Your task to perform on an android device: Open the Play Movies app and select the watchlist tab. Image 0: 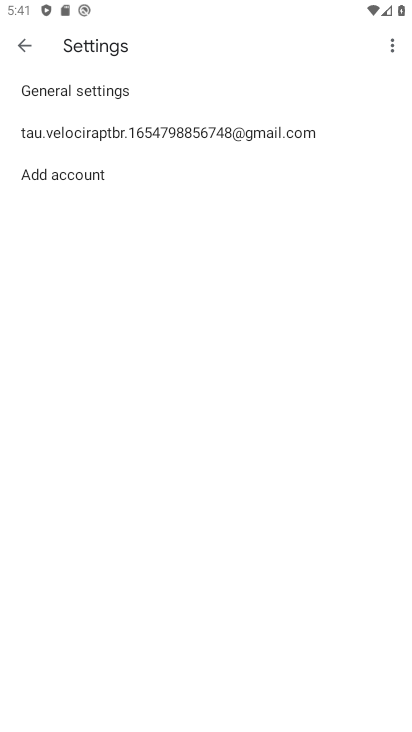
Step 0: press home button
Your task to perform on an android device: Open the Play Movies app and select the watchlist tab. Image 1: 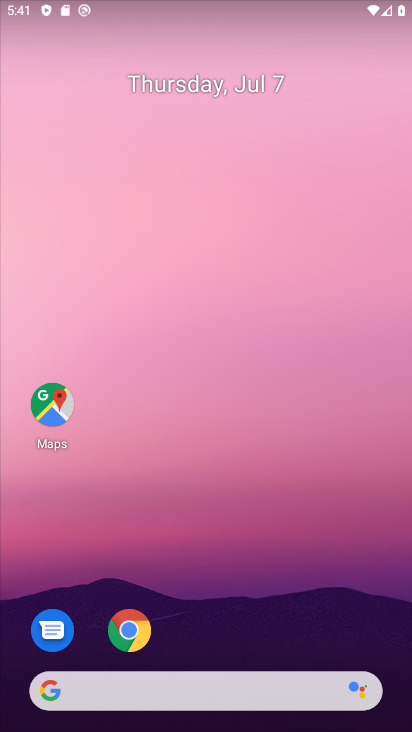
Step 1: drag from (218, 575) to (201, 38)
Your task to perform on an android device: Open the Play Movies app and select the watchlist tab. Image 2: 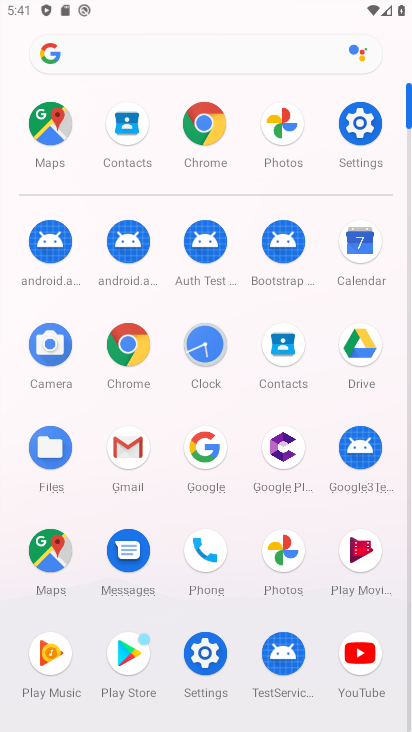
Step 2: click (365, 572)
Your task to perform on an android device: Open the Play Movies app and select the watchlist tab. Image 3: 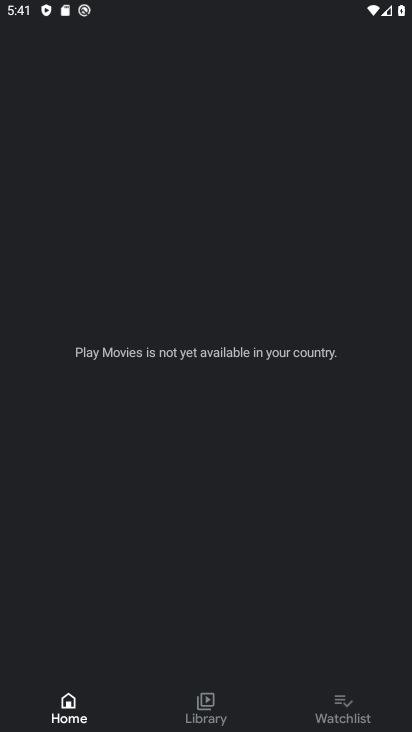
Step 3: click (340, 705)
Your task to perform on an android device: Open the Play Movies app and select the watchlist tab. Image 4: 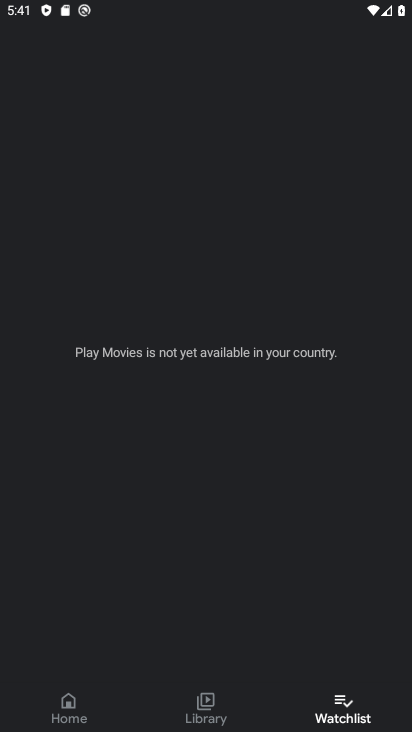
Step 4: task complete